Your task to perform on an android device: Go to battery settings Image 0: 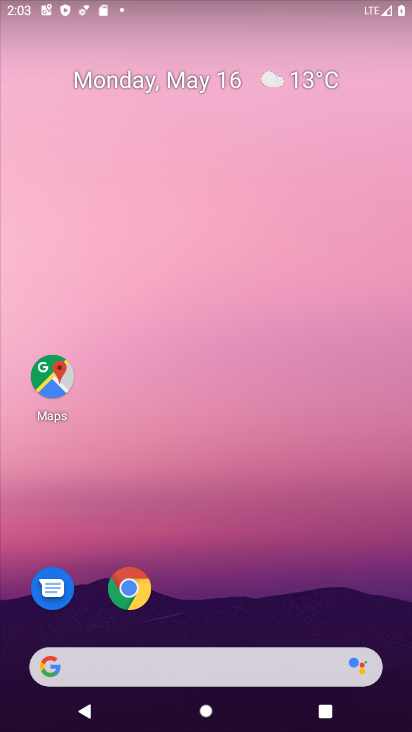
Step 0: drag from (188, 624) to (287, 102)
Your task to perform on an android device: Go to battery settings Image 1: 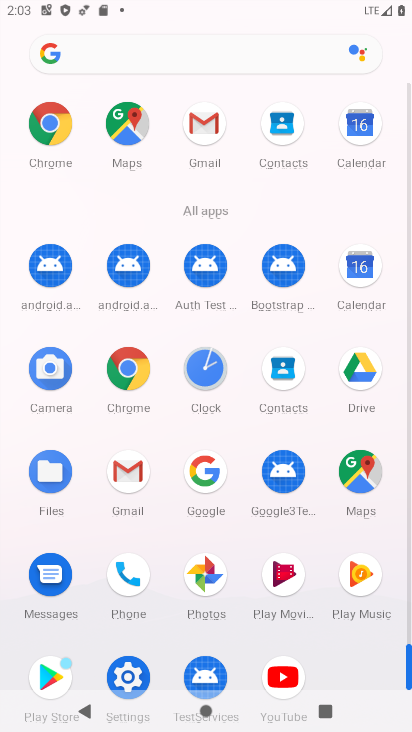
Step 1: click (117, 678)
Your task to perform on an android device: Go to battery settings Image 2: 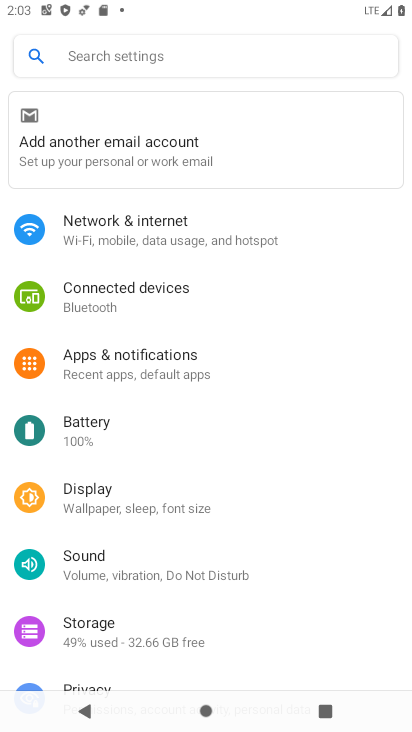
Step 2: drag from (114, 590) to (163, 436)
Your task to perform on an android device: Go to battery settings Image 3: 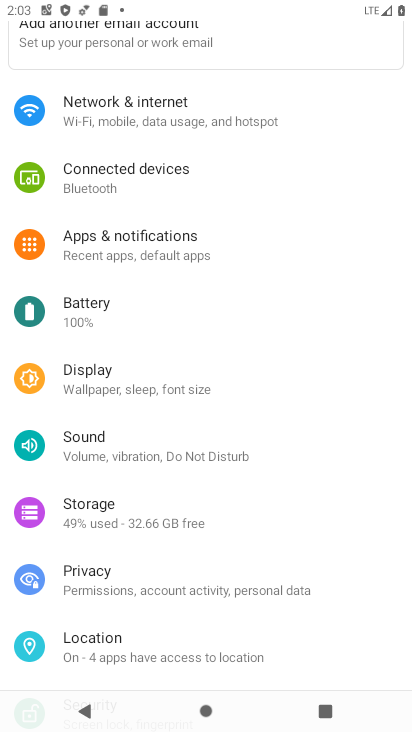
Step 3: click (133, 314)
Your task to perform on an android device: Go to battery settings Image 4: 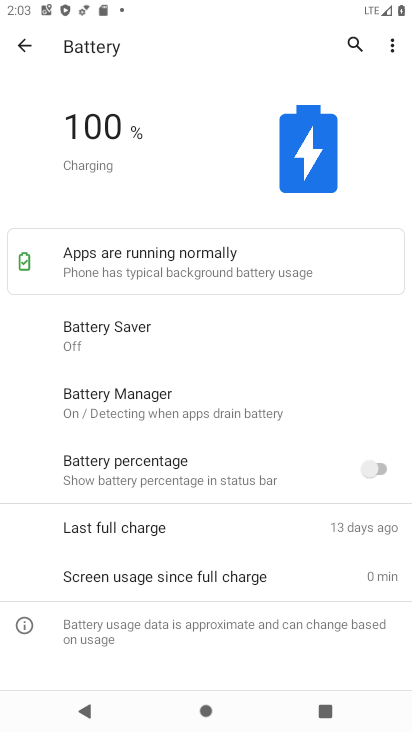
Step 4: task complete